Your task to perform on an android device: Search for the best Nike running shoes on Nike.com Image 0: 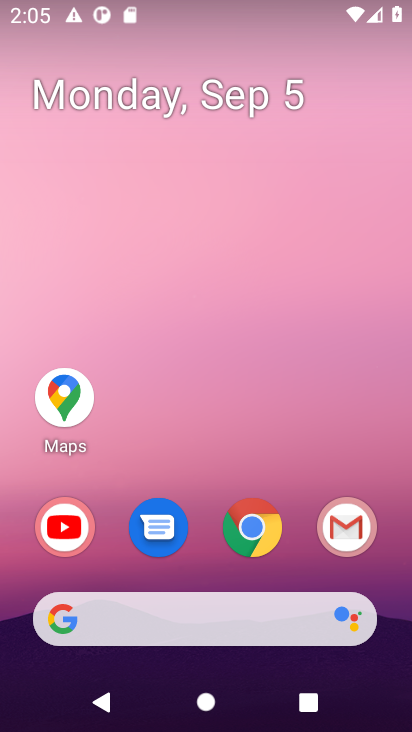
Step 0: click (307, 424)
Your task to perform on an android device: Search for the best Nike running shoes on Nike.com Image 1: 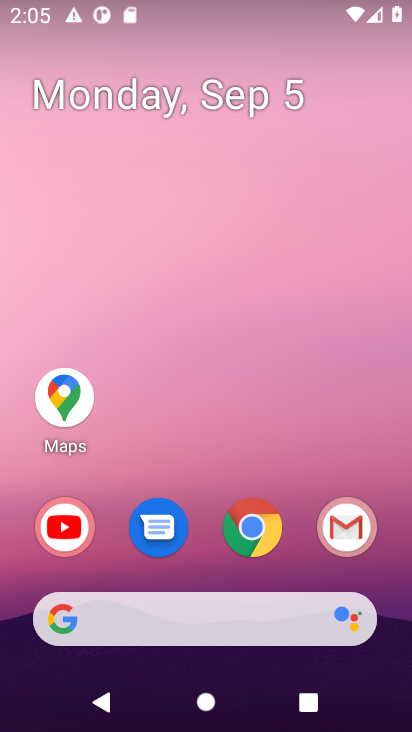
Step 1: click (241, 518)
Your task to perform on an android device: Search for the best Nike running shoes on Nike.com Image 2: 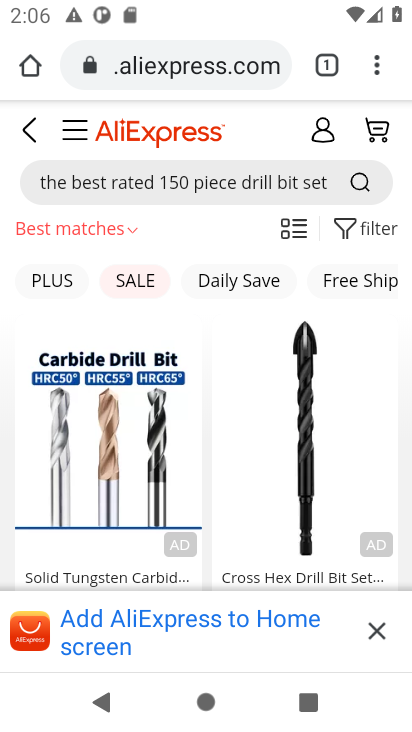
Step 2: click (174, 60)
Your task to perform on an android device: Search for the best Nike running shoes on Nike.com Image 3: 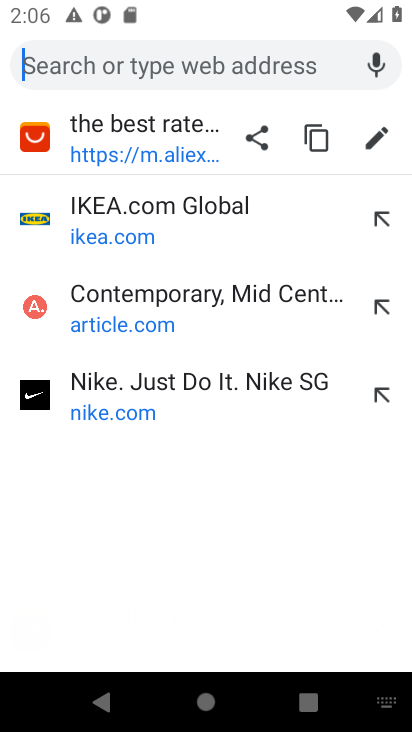
Step 3: type "Nike"
Your task to perform on an android device: Search for the best Nike running shoes on Nike.com Image 4: 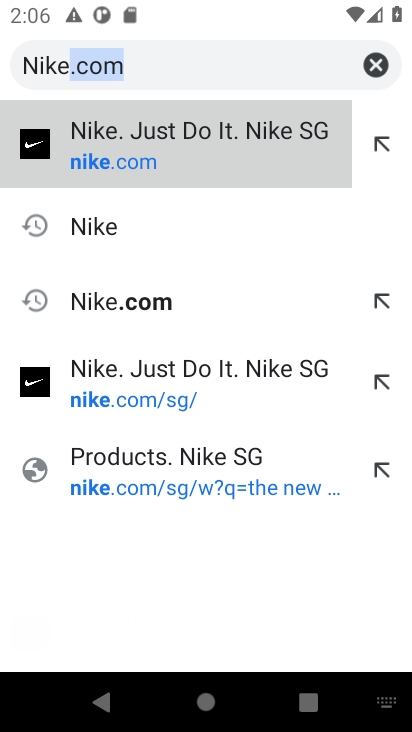
Step 4: click (113, 223)
Your task to perform on an android device: Search for the best Nike running shoes on Nike.com Image 5: 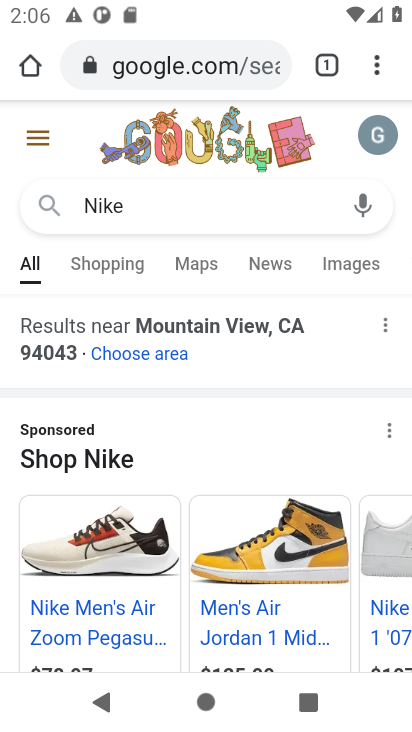
Step 5: drag from (238, 388) to (294, 112)
Your task to perform on an android device: Search for the best Nike running shoes on Nike.com Image 6: 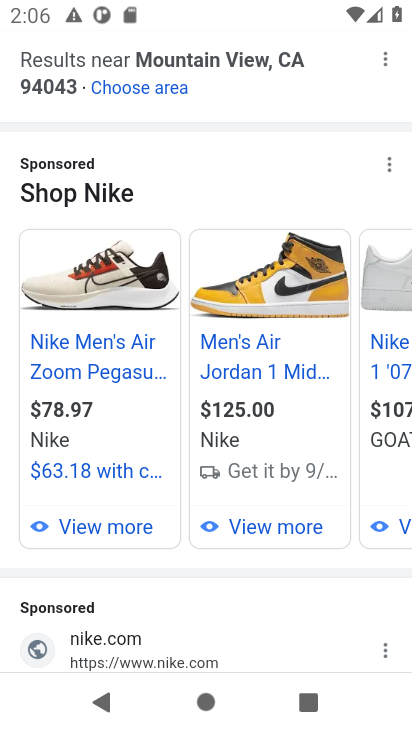
Step 6: drag from (225, 462) to (258, 201)
Your task to perform on an android device: Search for the best Nike running shoes on Nike.com Image 7: 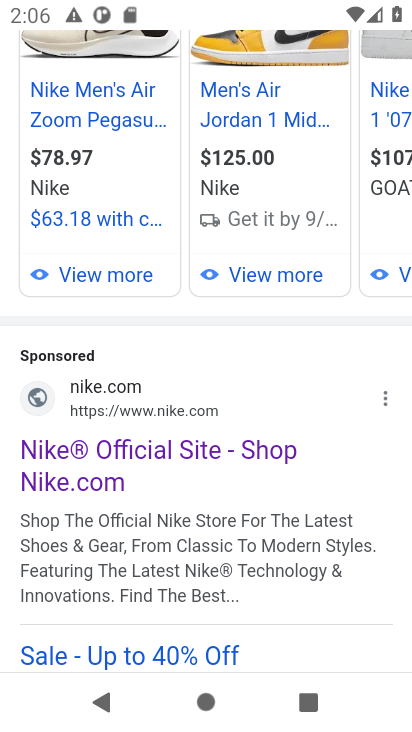
Step 7: click (124, 445)
Your task to perform on an android device: Search for the best Nike running shoes on Nike.com Image 8: 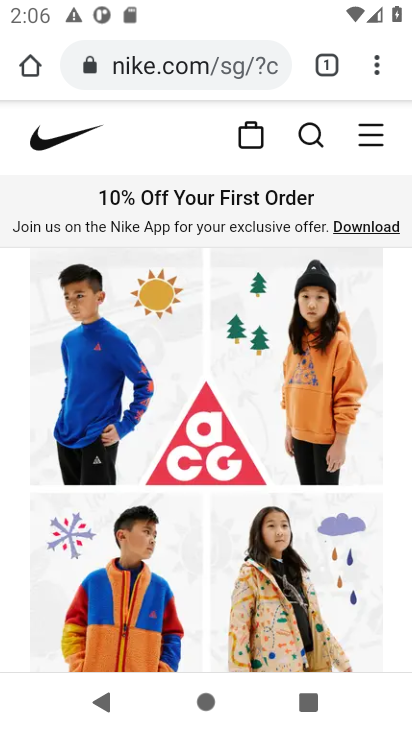
Step 8: click (317, 138)
Your task to perform on an android device: Search for the best Nike running shoes on Nike.com Image 9: 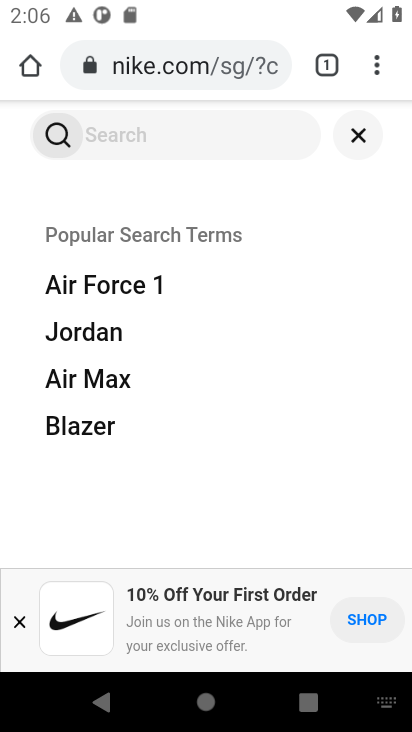
Step 9: click (162, 132)
Your task to perform on an android device: Search for the best Nike running shoes on Nike.com Image 10: 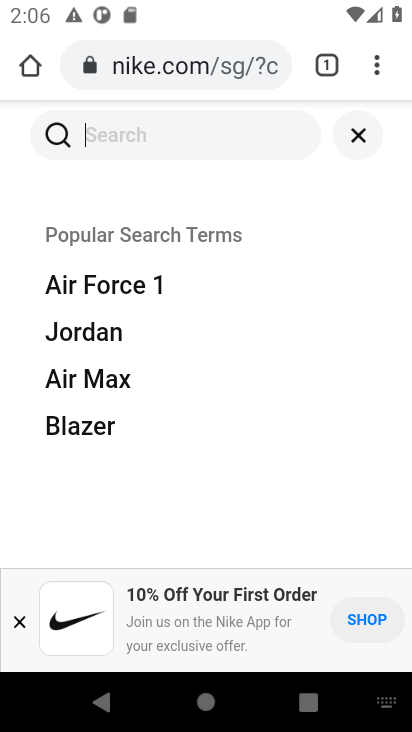
Step 10: type " the best Nike running shoes"
Your task to perform on an android device: Search for the best Nike running shoes on Nike.com Image 11: 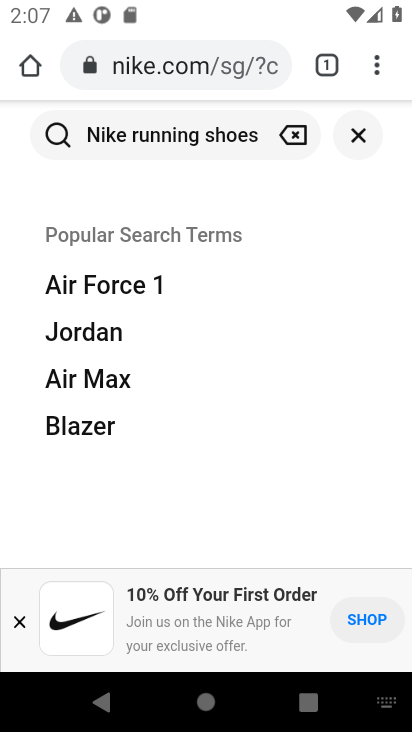
Step 11: click (64, 132)
Your task to perform on an android device: Search for the best Nike running shoes on Nike.com Image 12: 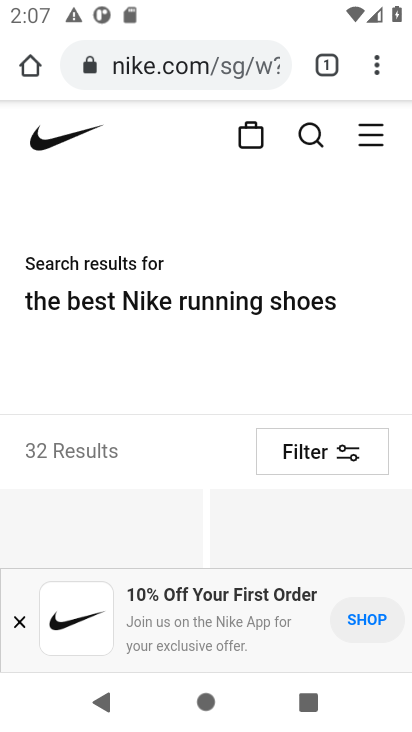
Step 12: task complete